Your task to perform on an android device: check battery use Image 0: 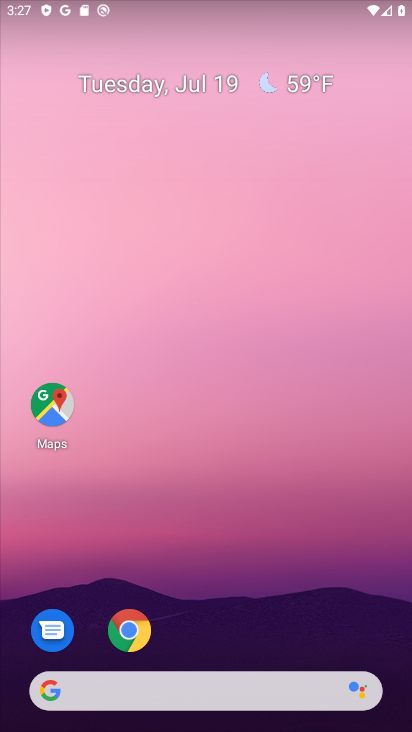
Step 0: drag from (275, 621) to (399, 171)
Your task to perform on an android device: check battery use Image 1: 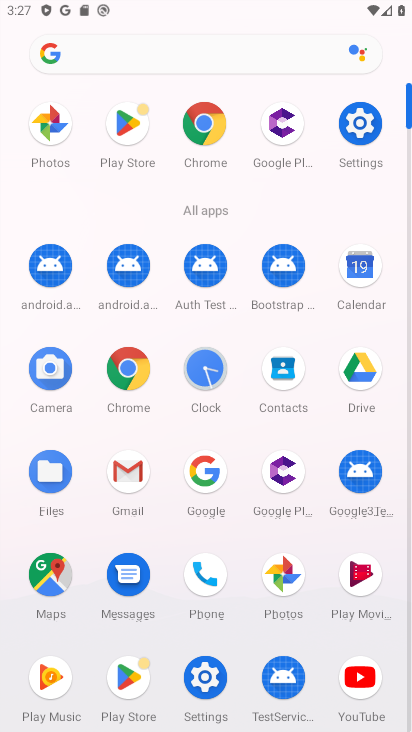
Step 1: click (195, 682)
Your task to perform on an android device: check battery use Image 2: 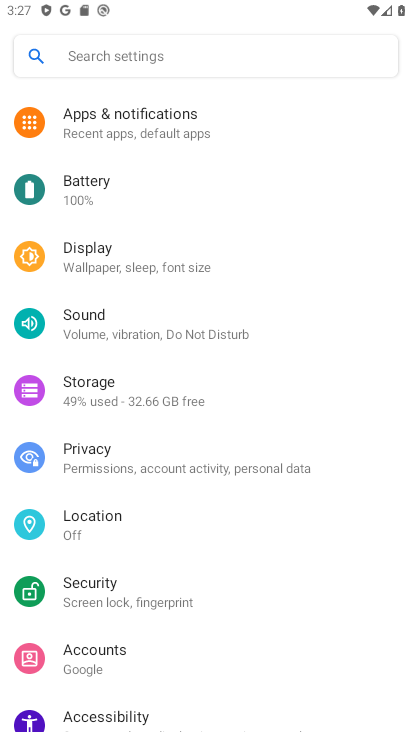
Step 2: drag from (166, 325) to (150, 626)
Your task to perform on an android device: check battery use Image 3: 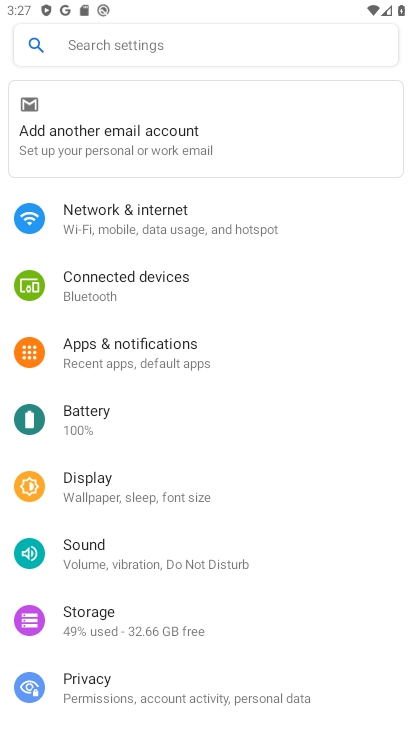
Step 3: click (141, 423)
Your task to perform on an android device: check battery use Image 4: 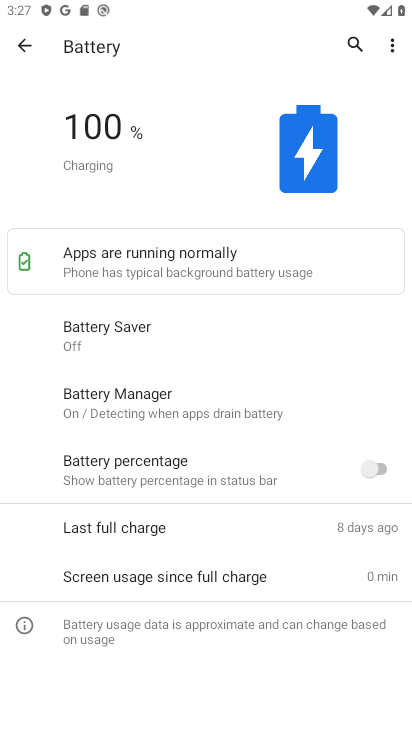
Step 4: click (394, 49)
Your task to perform on an android device: check battery use Image 5: 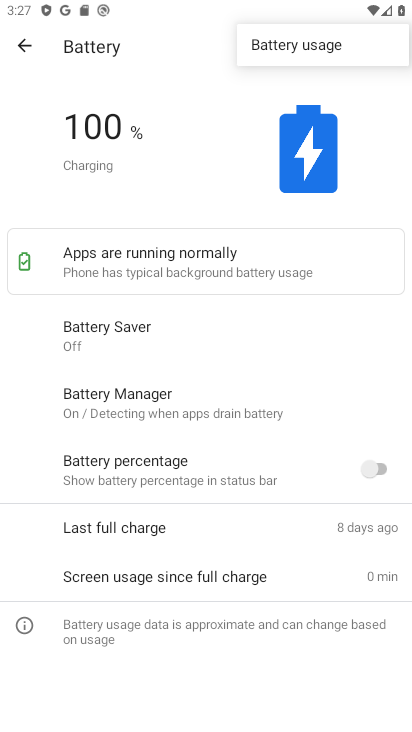
Step 5: click (382, 50)
Your task to perform on an android device: check battery use Image 6: 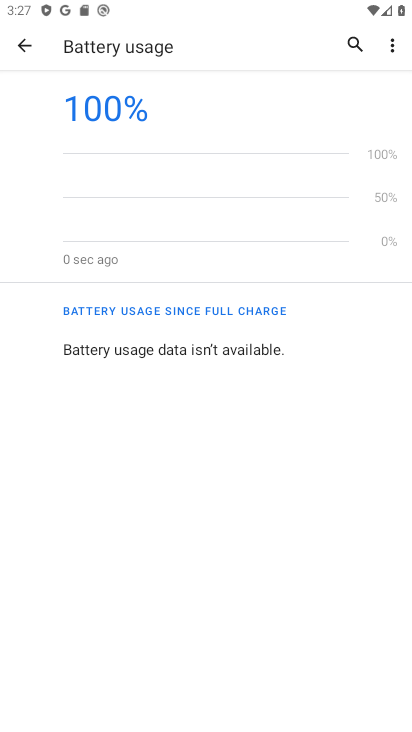
Step 6: task complete